Your task to perform on an android device: toggle data saver in the chrome app Image 0: 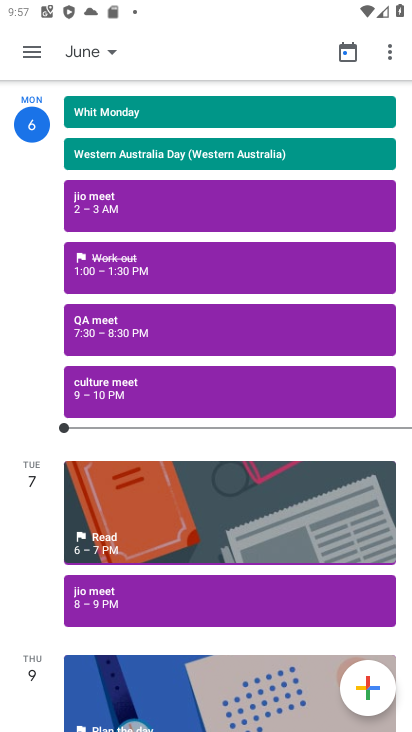
Step 0: press back button
Your task to perform on an android device: toggle data saver in the chrome app Image 1: 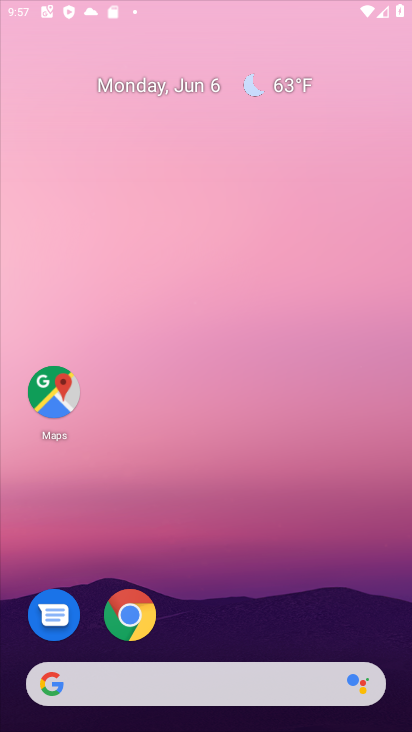
Step 1: press back button
Your task to perform on an android device: toggle data saver in the chrome app Image 2: 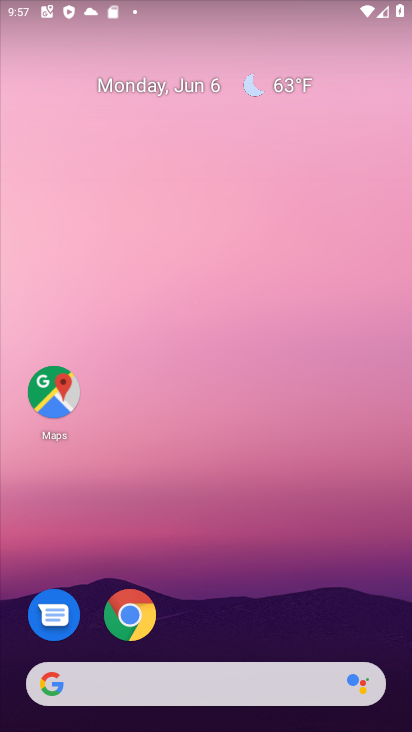
Step 2: click (128, 613)
Your task to perform on an android device: toggle data saver in the chrome app Image 3: 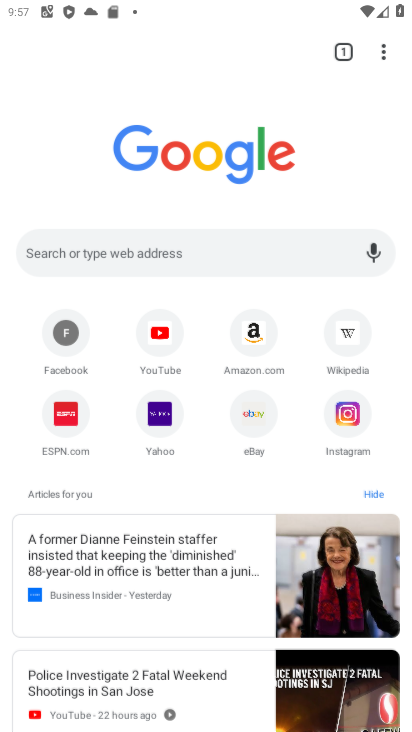
Step 3: drag from (376, 53) to (214, 417)
Your task to perform on an android device: toggle data saver in the chrome app Image 4: 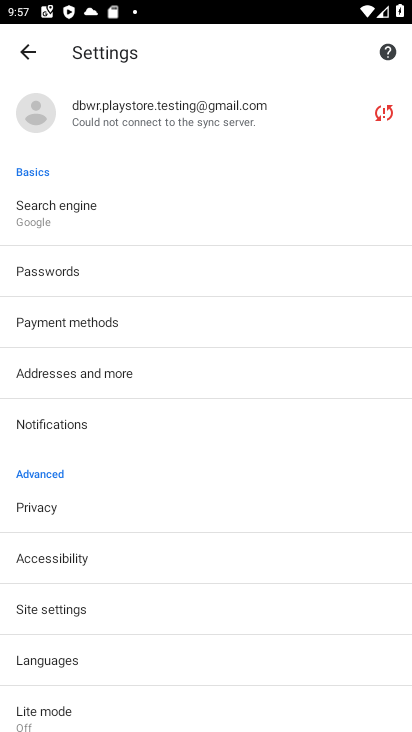
Step 4: click (53, 713)
Your task to perform on an android device: toggle data saver in the chrome app Image 5: 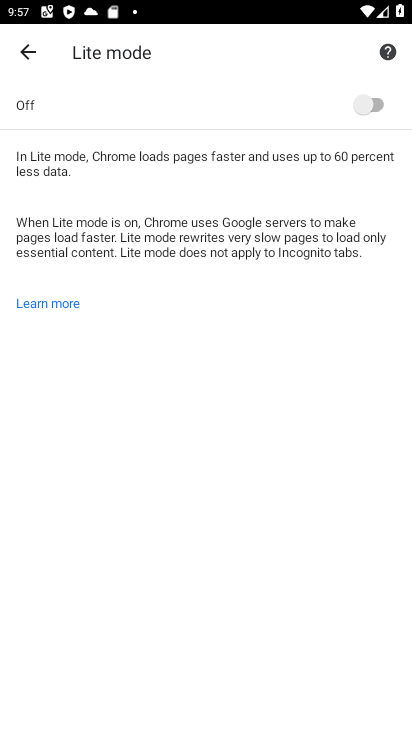
Step 5: click (371, 100)
Your task to perform on an android device: toggle data saver in the chrome app Image 6: 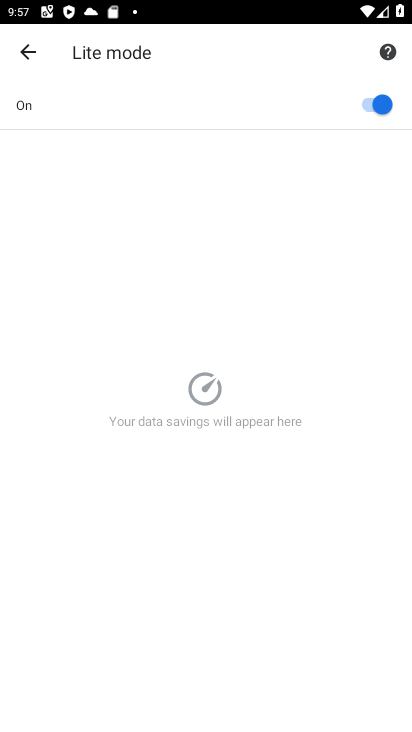
Step 6: task complete